Your task to perform on an android device: open device folders in google photos Image 0: 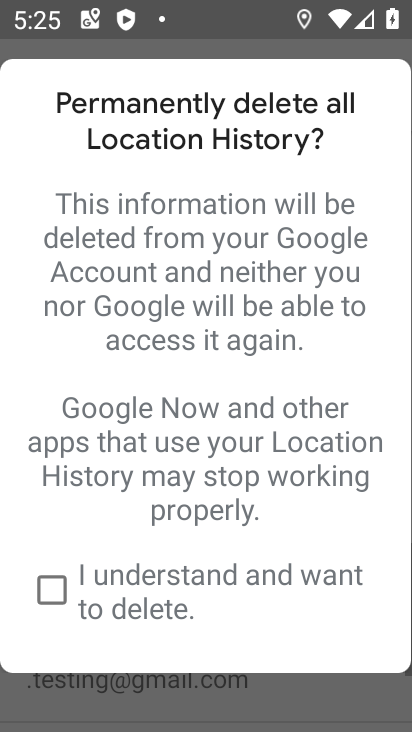
Step 0: press home button
Your task to perform on an android device: open device folders in google photos Image 1: 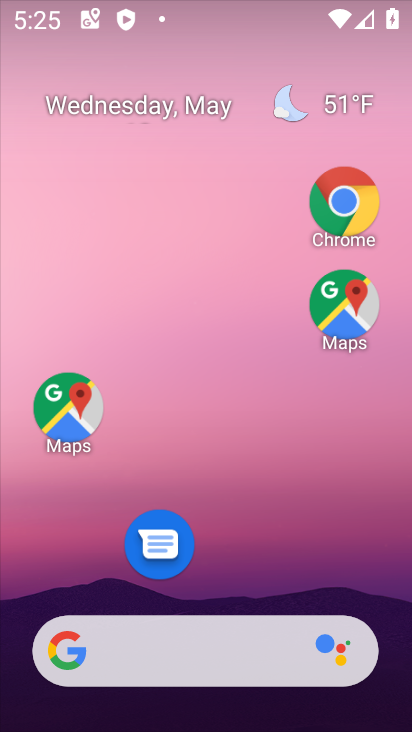
Step 1: drag from (222, 556) to (260, 49)
Your task to perform on an android device: open device folders in google photos Image 2: 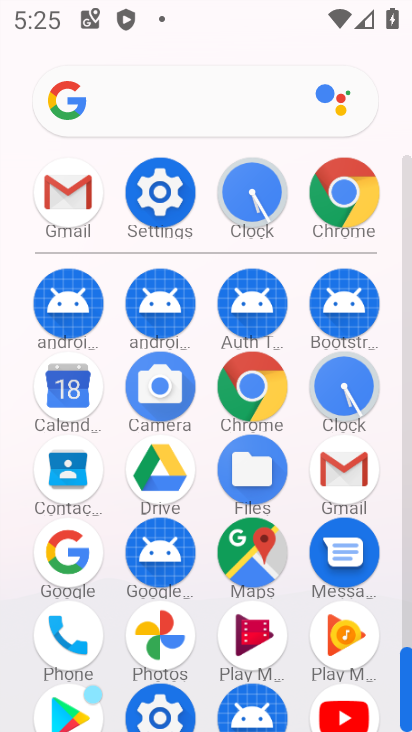
Step 2: click (155, 647)
Your task to perform on an android device: open device folders in google photos Image 3: 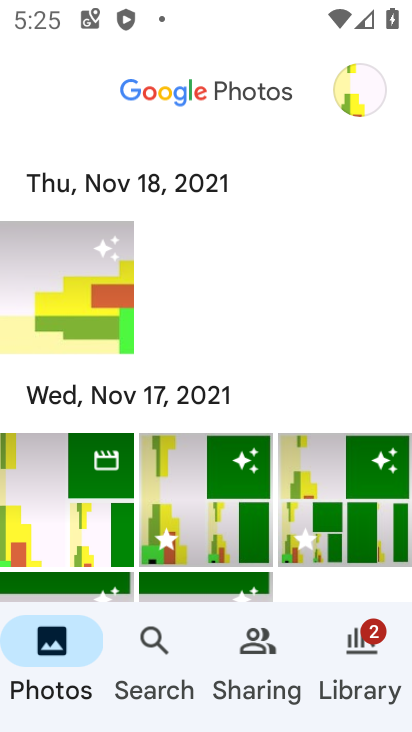
Step 3: click (175, 673)
Your task to perform on an android device: open device folders in google photos Image 4: 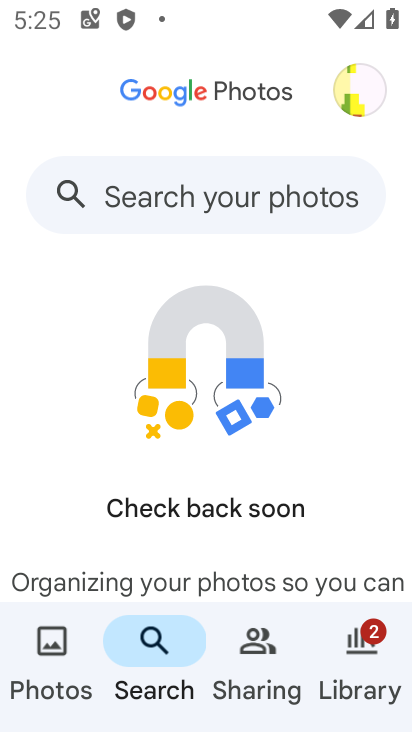
Step 4: drag from (247, 550) to (211, 222)
Your task to perform on an android device: open device folders in google photos Image 5: 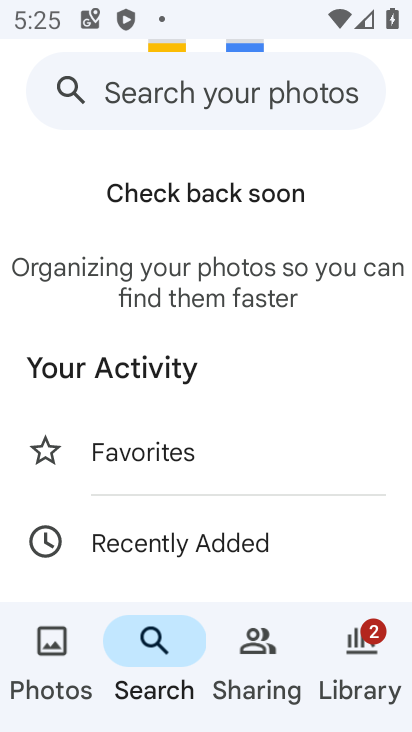
Step 5: click (355, 659)
Your task to perform on an android device: open device folders in google photos Image 6: 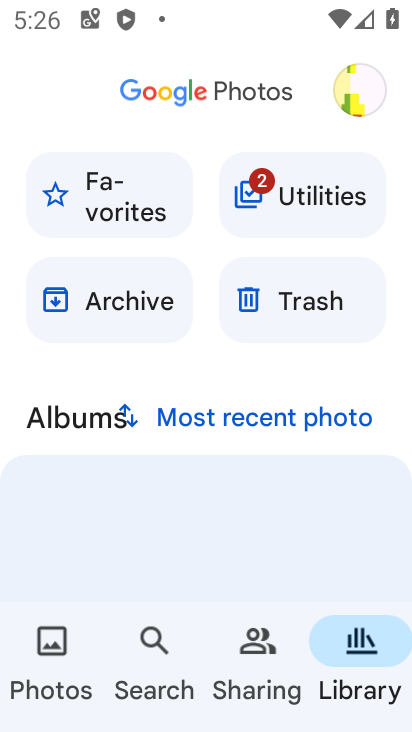
Step 6: task complete